Your task to perform on an android device: turn on translation in the chrome app Image 0: 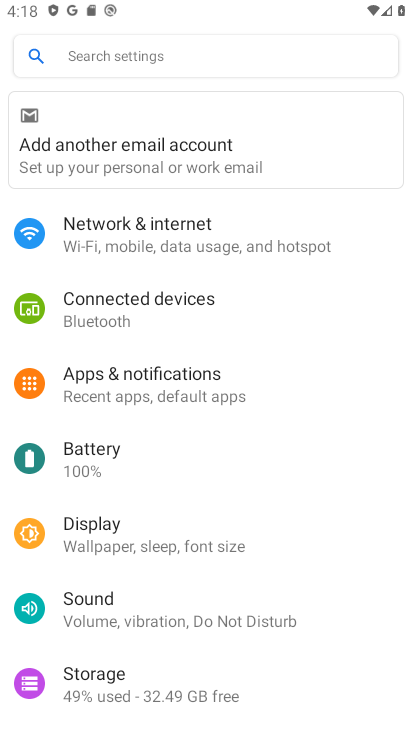
Step 0: press back button
Your task to perform on an android device: turn on translation in the chrome app Image 1: 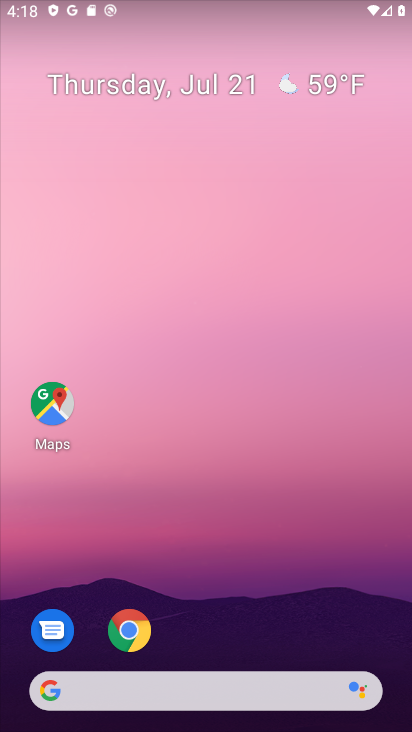
Step 1: drag from (206, 516) to (172, 273)
Your task to perform on an android device: turn on translation in the chrome app Image 2: 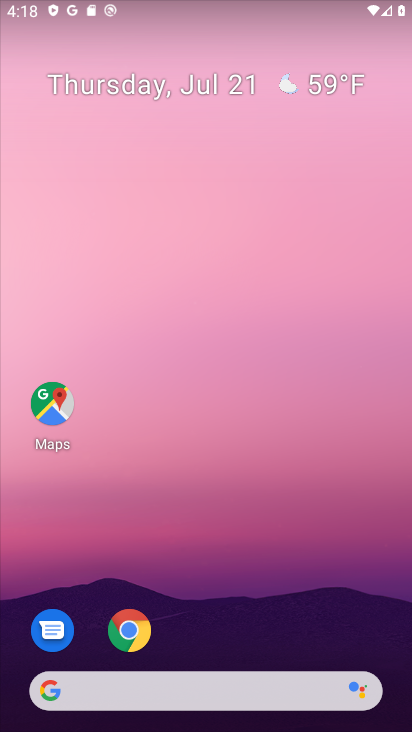
Step 2: drag from (162, 546) to (154, 74)
Your task to perform on an android device: turn on translation in the chrome app Image 3: 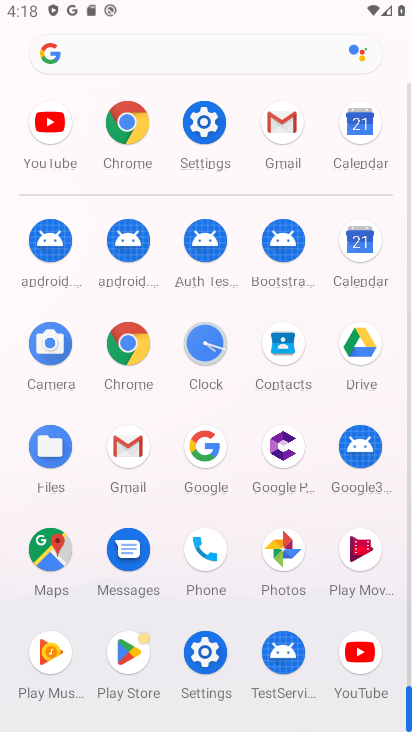
Step 3: click (131, 126)
Your task to perform on an android device: turn on translation in the chrome app Image 4: 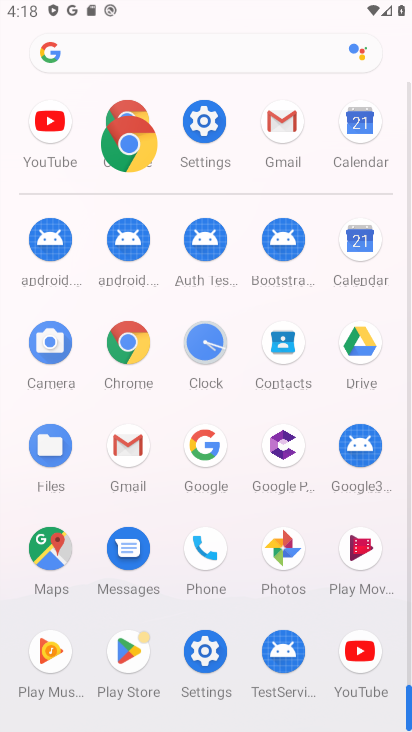
Step 4: click (136, 123)
Your task to perform on an android device: turn on translation in the chrome app Image 5: 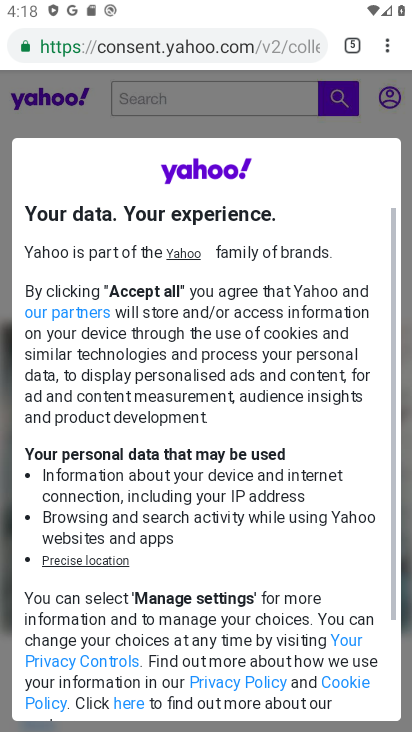
Step 5: drag from (392, 54) to (236, 96)
Your task to perform on an android device: turn on translation in the chrome app Image 6: 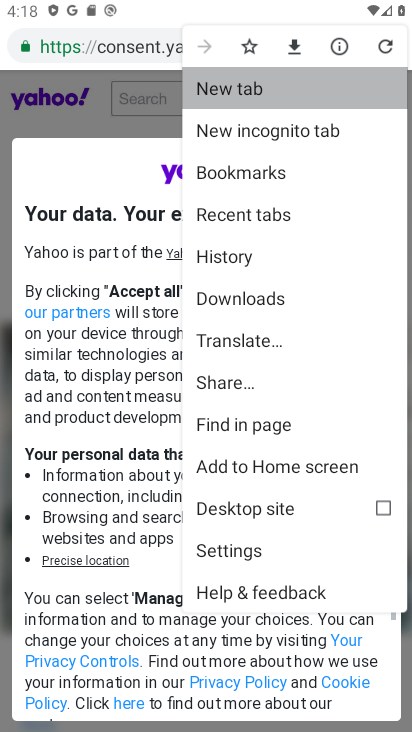
Step 6: click (235, 95)
Your task to perform on an android device: turn on translation in the chrome app Image 7: 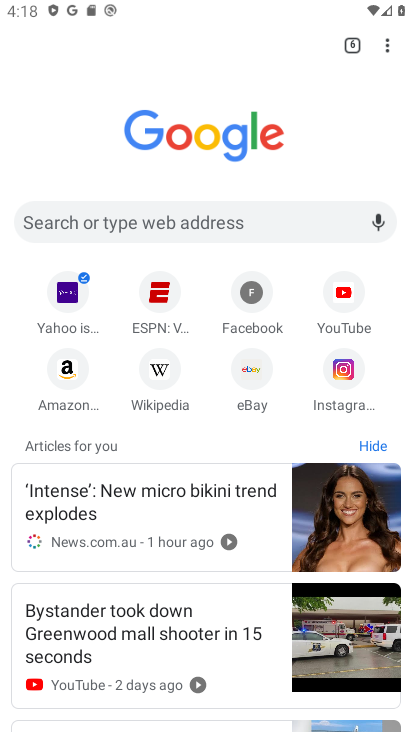
Step 7: drag from (382, 45) to (229, 385)
Your task to perform on an android device: turn on translation in the chrome app Image 8: 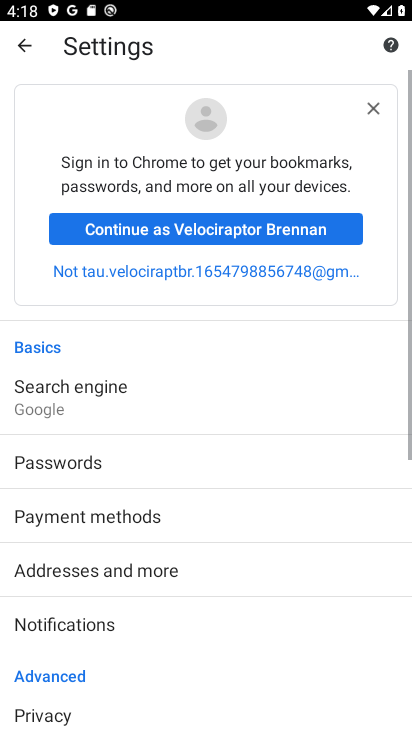
Step 8: drag from (161, 510) to (159, 165)
Your task to perform on an android device: turn on translation in the chrome app Image 9: 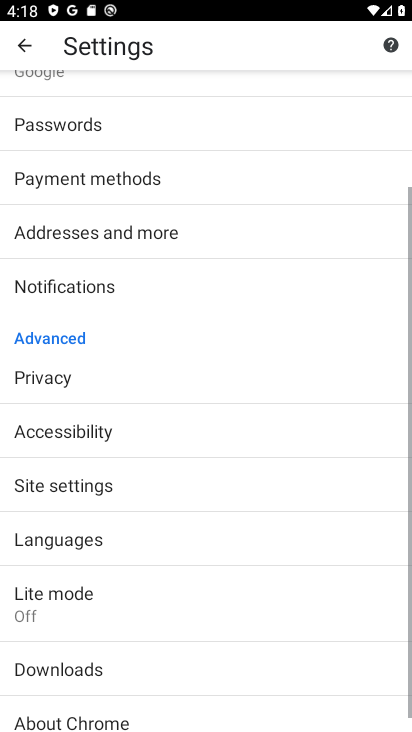
Step 9: drag from (133, 420) to (207, 135)
Your task to perform on an android device: turn on translation in the chrome app Image 10: 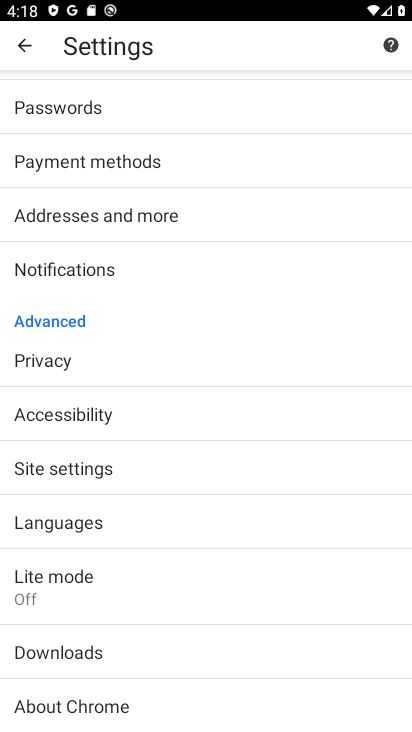
Step 10: click (89, 523)
Your task to perform on an android device: turn on translation in the chrome app Image 11: 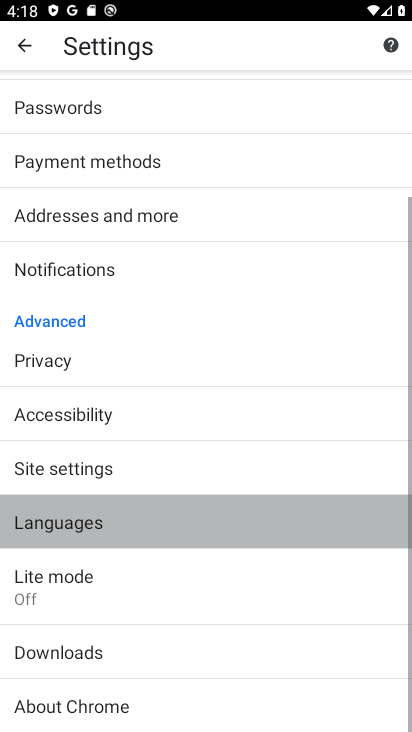
Step 11: click (89, 522)
Your task to perform on an android device: turn on translation in the chrome app Image 12: 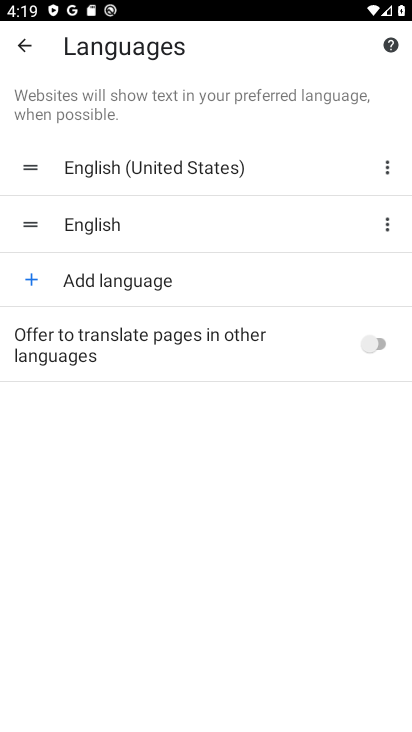
Step 12: click (376, 342)
Your task to perform on an android device: turn on translation in the chrome app Image 13: 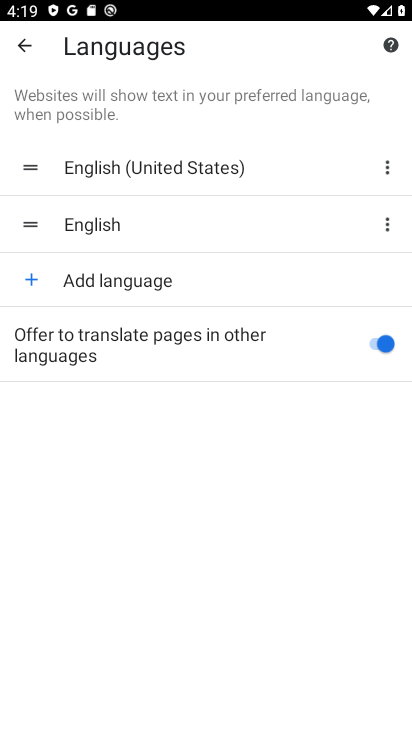
Step 13: task complete